Your task to perform on an android device: turn on notifications settings in the gmail app Image 0: 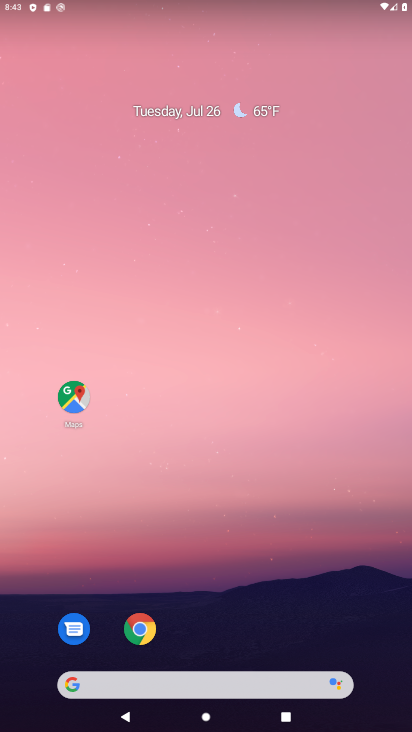
Step 0: drag from (325, 625) to (240, 1)
Your task to perform on an android device: turn on notifications settings in the gmail app Image 1: 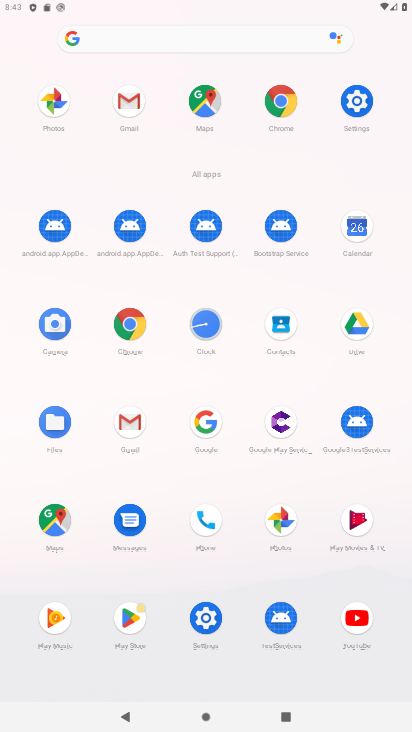
Step 1: click (131, 132)
Your task to perform on an android device: turn on notifications settings in the gmail app Image 2: 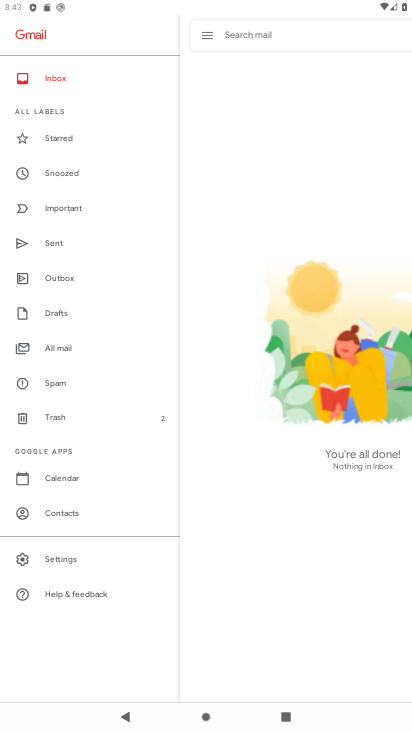
Step 2: click (61, 551)
Your task to perform on an android device: turn on notifications settings in the gmail app Image 3: 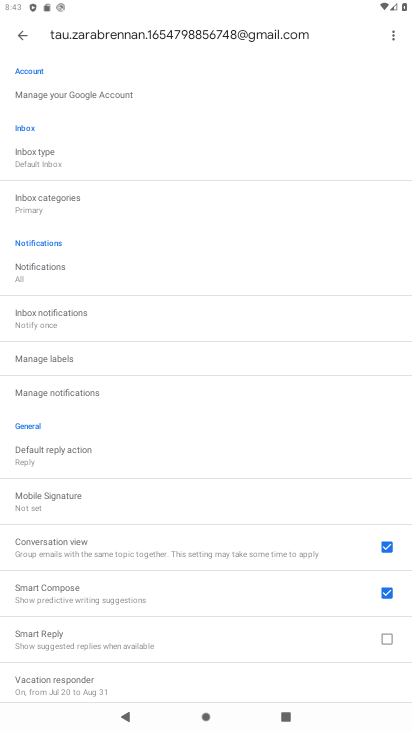
Step 3: click (61, 393)
Your task to perform on an android device: turn on notifications settings in the gmail app Image 4: 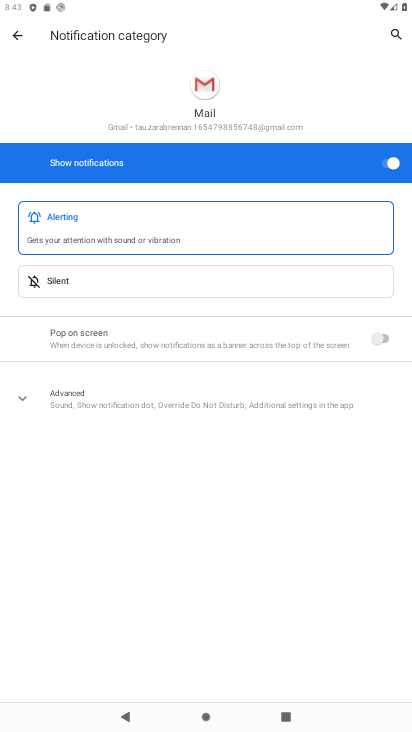
Step 4: task complete